Your task to perform on an android device: set the stopwatch Image 0: 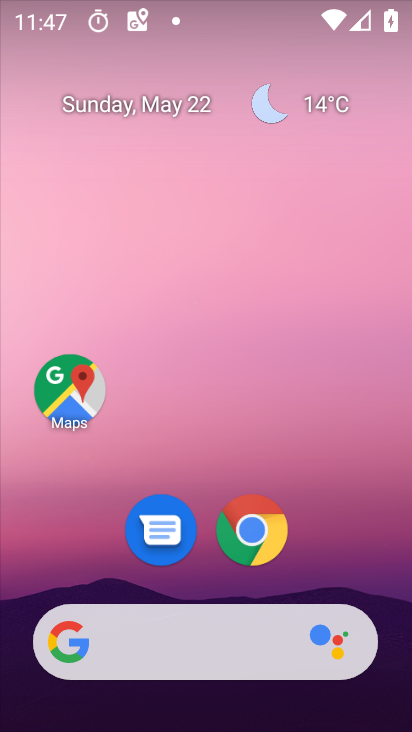
Step 0: drag from (397, 679) to (381, 223)
Your task to perform on an android device: set the stopwatch Image 1: 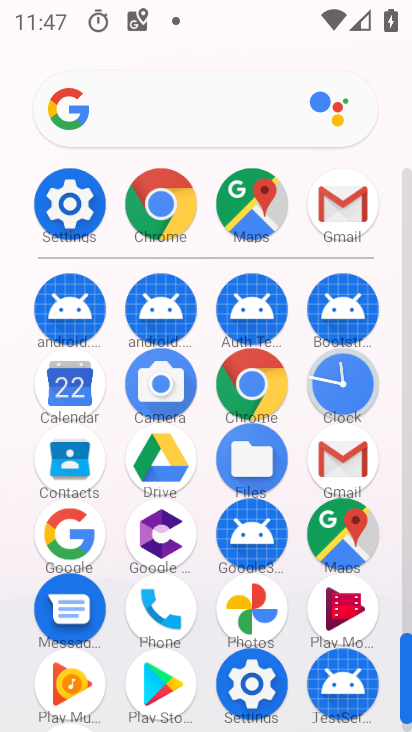
Step 1: click (48, 201)
Your task to perform on an android device: set the stopwatch Image 2: 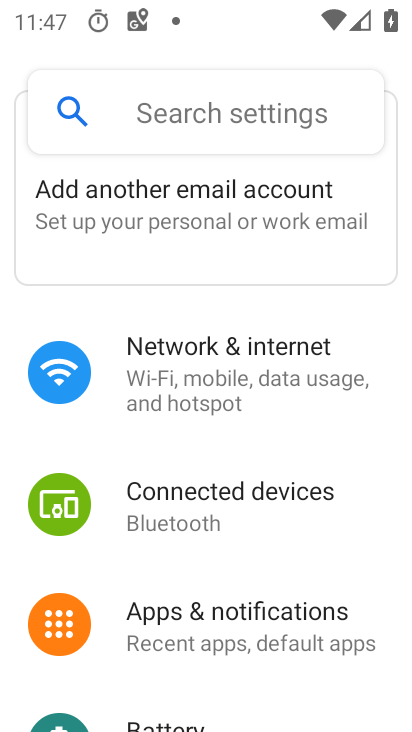
Step 2: press back button
Your task to perform on an android device: set the stopwatch Image 3: 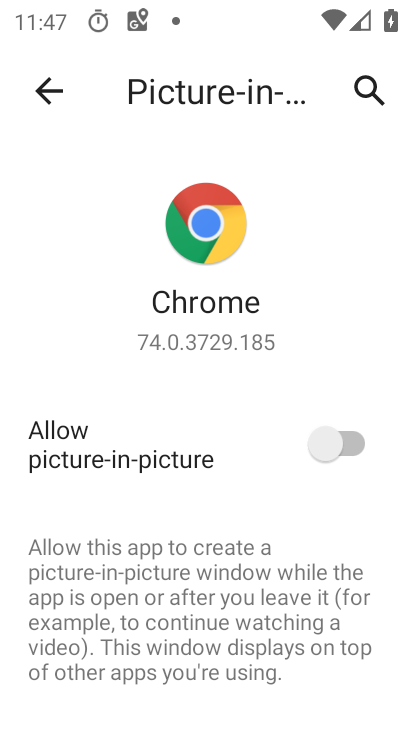
Step 3: press back button
Your task to perform on an android device: set the stopwatch Image 4: 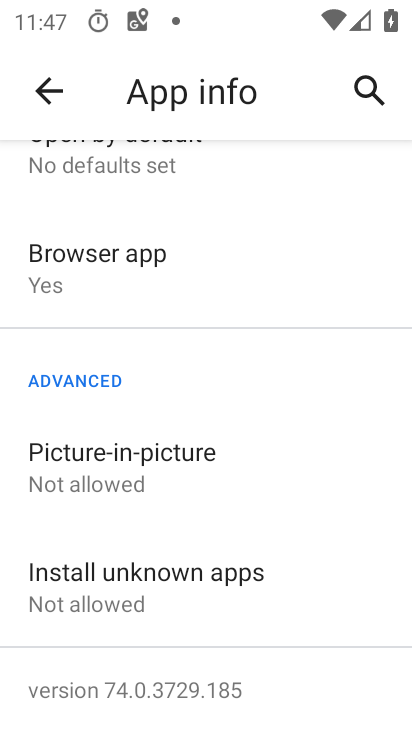
Step 4: press back button
Your task to perform on an android device: set the stopwatch Image 5: 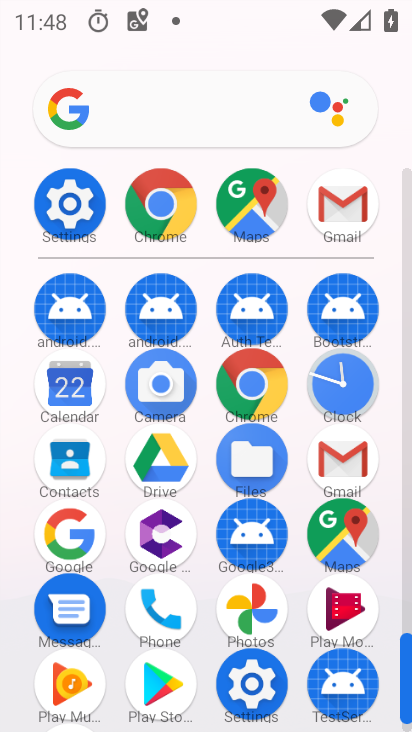
Step 5: click (324, 385)
Your task to perform on an android device: set the stopwatch Image 6: 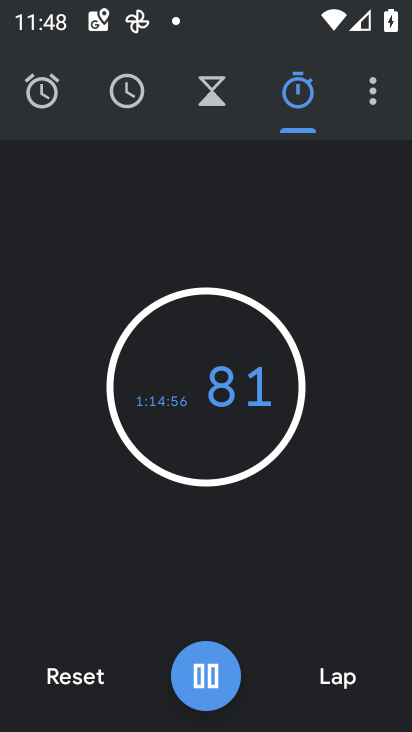
Step 6: click (86, 687)
Your task to perform on an android device: set the stopwatch Image 7: 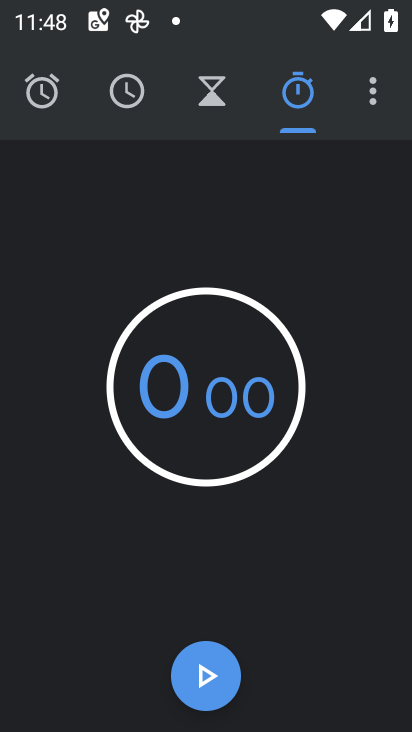
Step 7: click (199, 679)
Your task to perform on an android device: set the stopwatch Image 8: 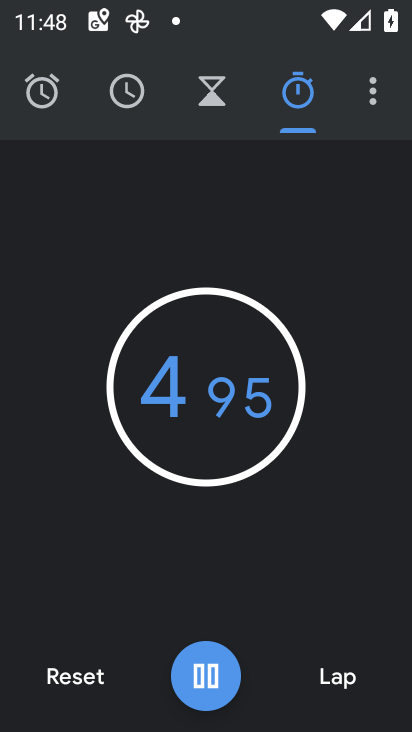
Step 8: task complete